Your task to perform on an android device: Search for lg ultragear on target.com, select the first entry, and add it to the cart. Image 0: 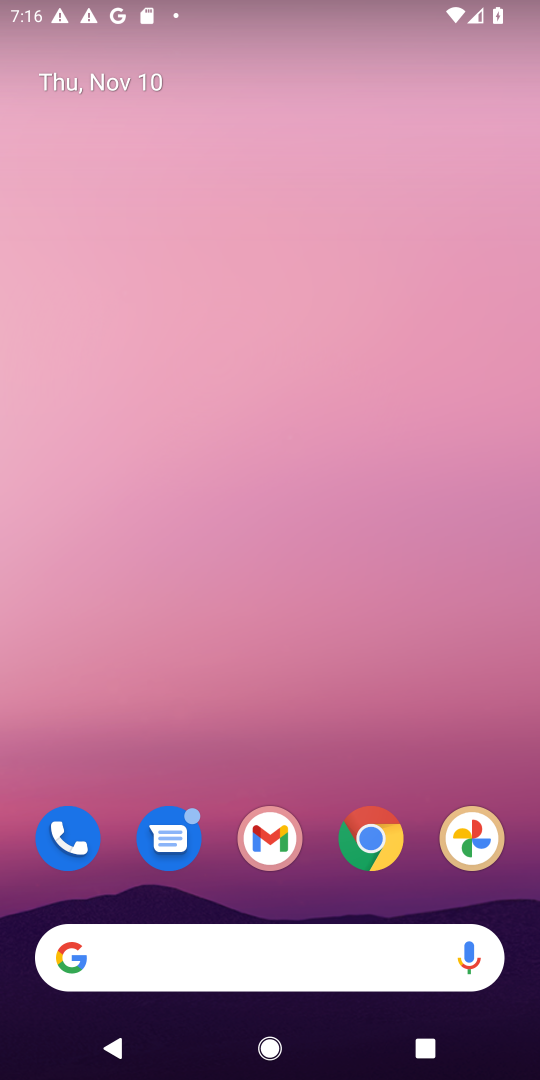
Step 0: drag from (309, 911) to (352, 176)
Your task to perform on an android device: Search for lg ultragear on target.com, select the first entry, and add it to the cart. Image 1: 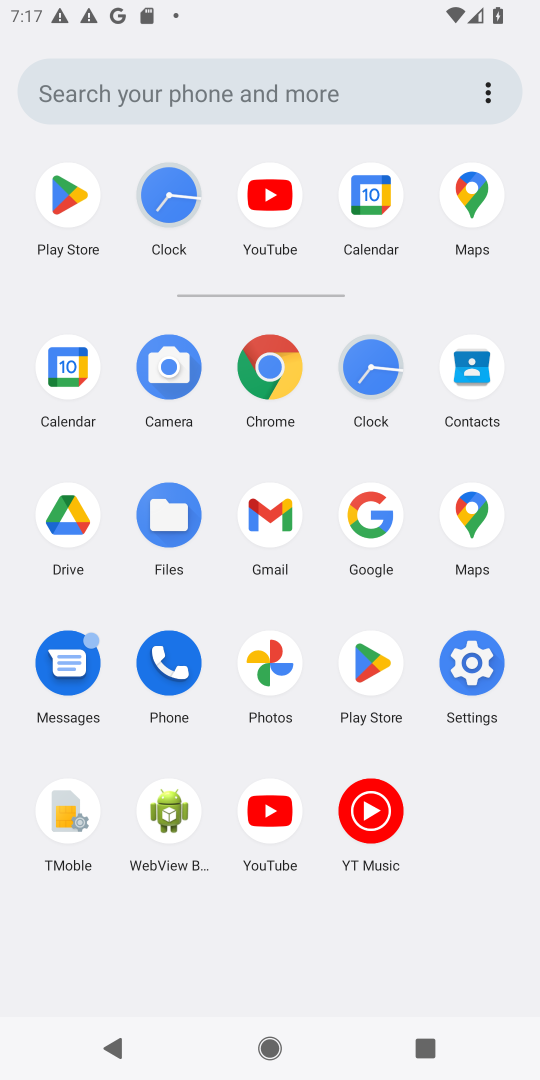
Step 1: click (277, 366)
Your task to perform on an android device: Search for lg ultragear on target.com, select the first entry, and add it to the cart. Image 2: 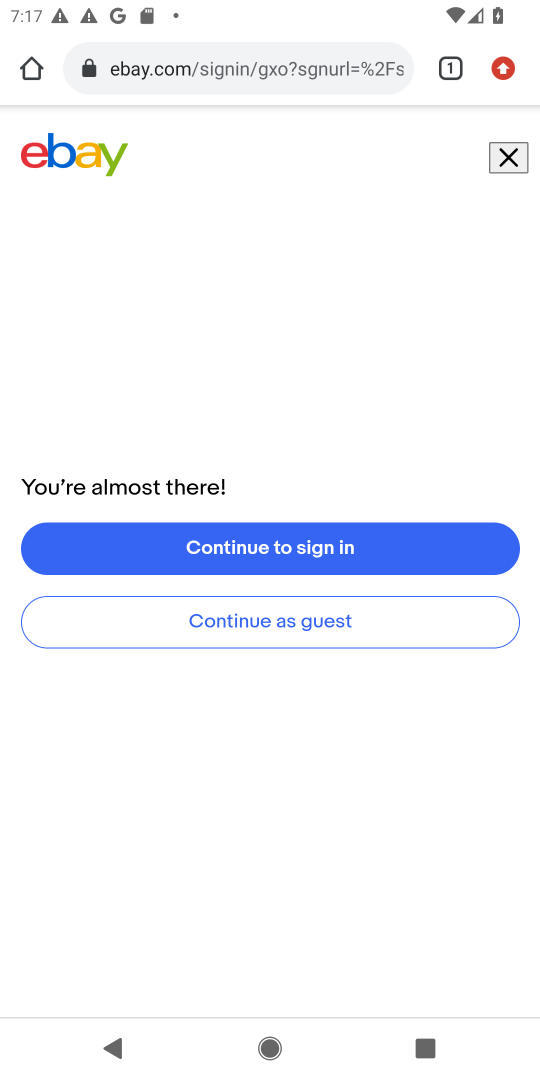
Step 2: click (290, 70)
Your task to perform on an android device: Search for lg ultragear on target.com, select the first entry, and add it to the cart. Image 3: 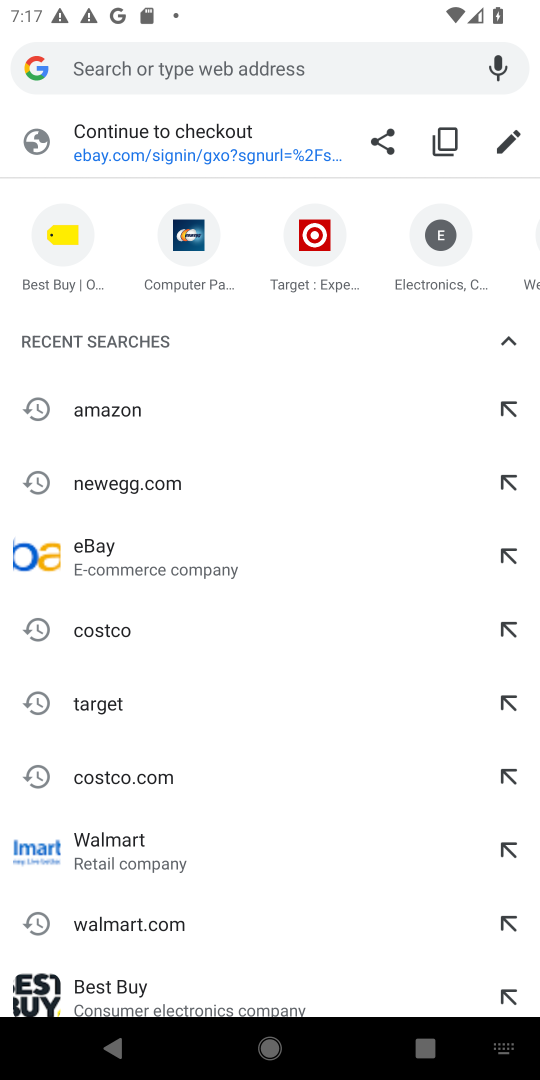
Step 3: type "target.com"
Your task to perform on an android device: Search for lg ultragear on target.com, select the first entry, and add it to the cart. Image 4: 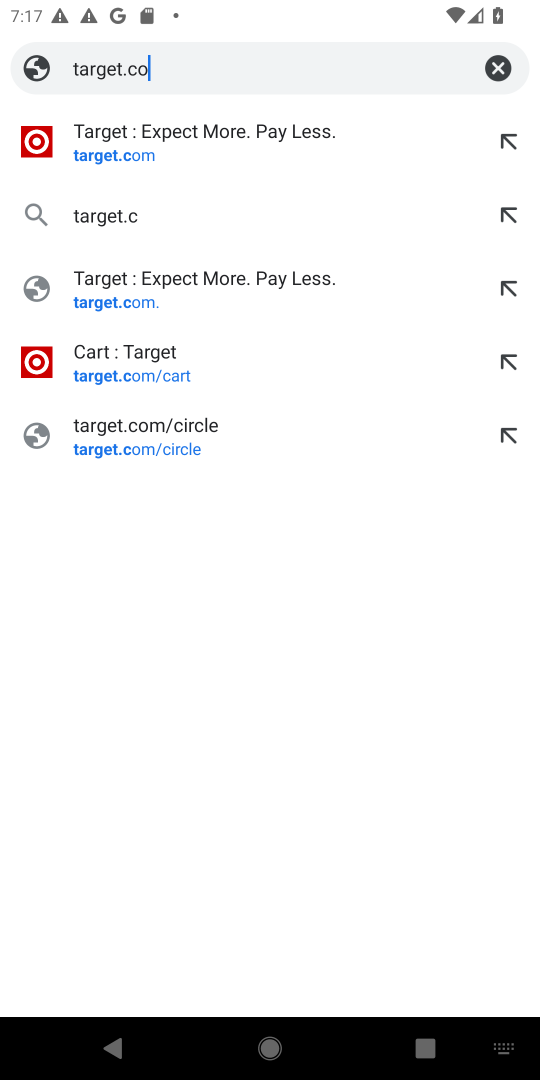
Step 4: press enter
Your task to perform on an android device: Search for lg ultragear on target.com, select the first entry, and add it to the cart. Image 5: 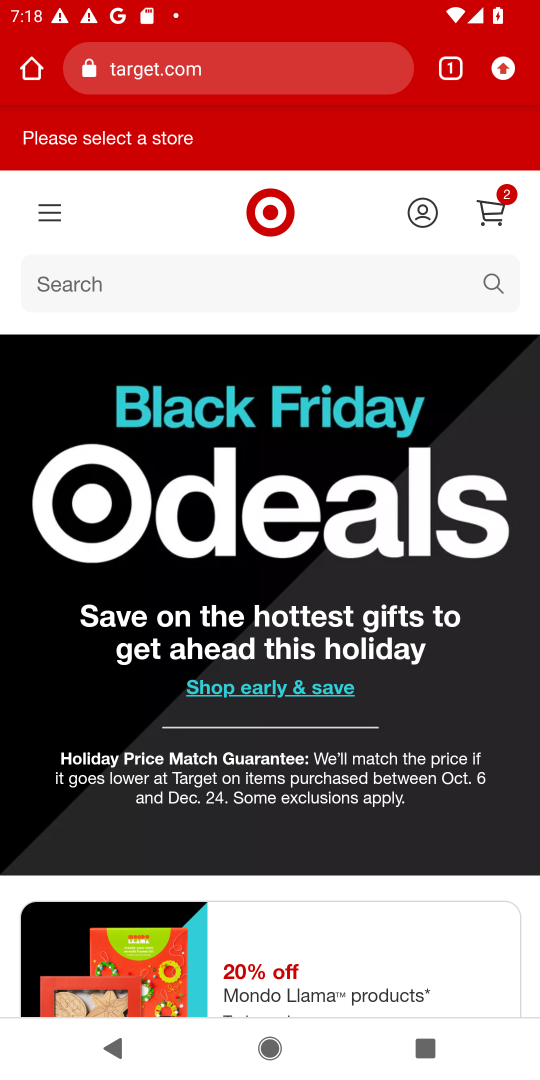
Step 5: click (143, 292)
Your task to perform on an android device: Search for lg ultragear on target.com, select the first entry, and add it to the cart. Image 6: 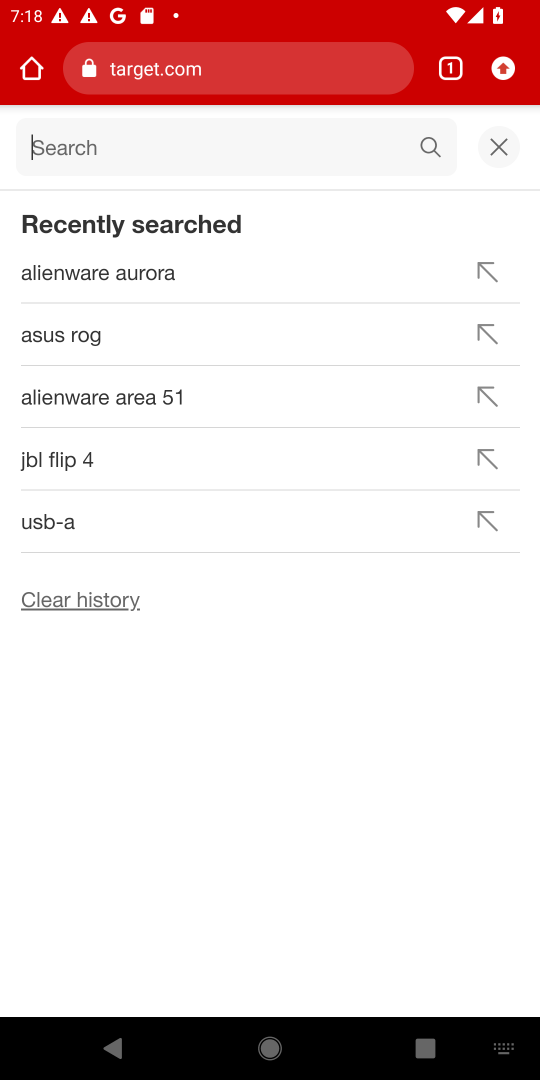
Step 6: type "lg ultragear"
Your task to perform on an android device: Search for lg ultragear on target.com, select the first entry, and add it to the cart. Image 7: 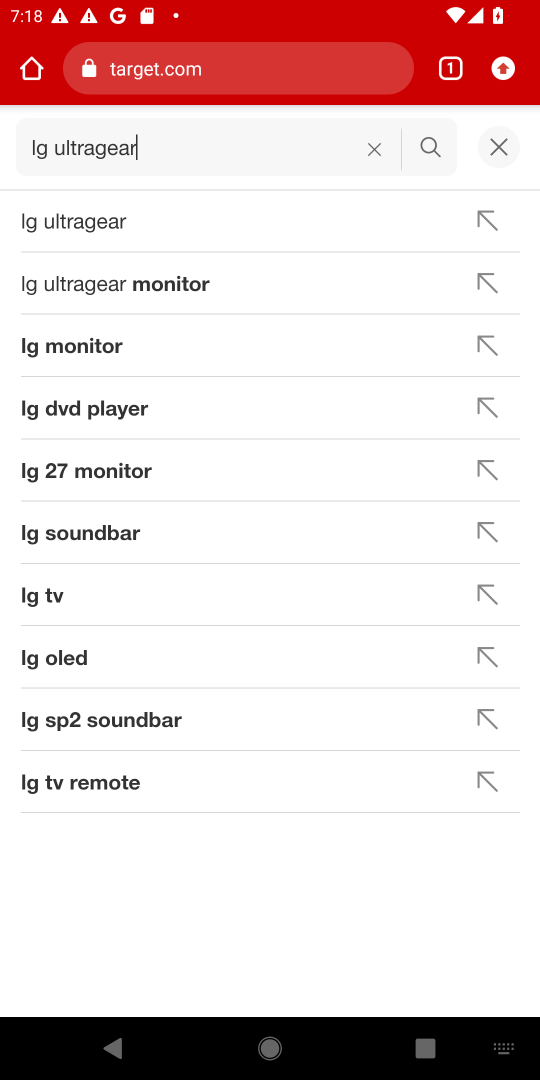
Step 7: press enter
Your task to perform on an android device: Search for lg ultragear on target.com, select the first entry, and add it to the cart. Image 8: 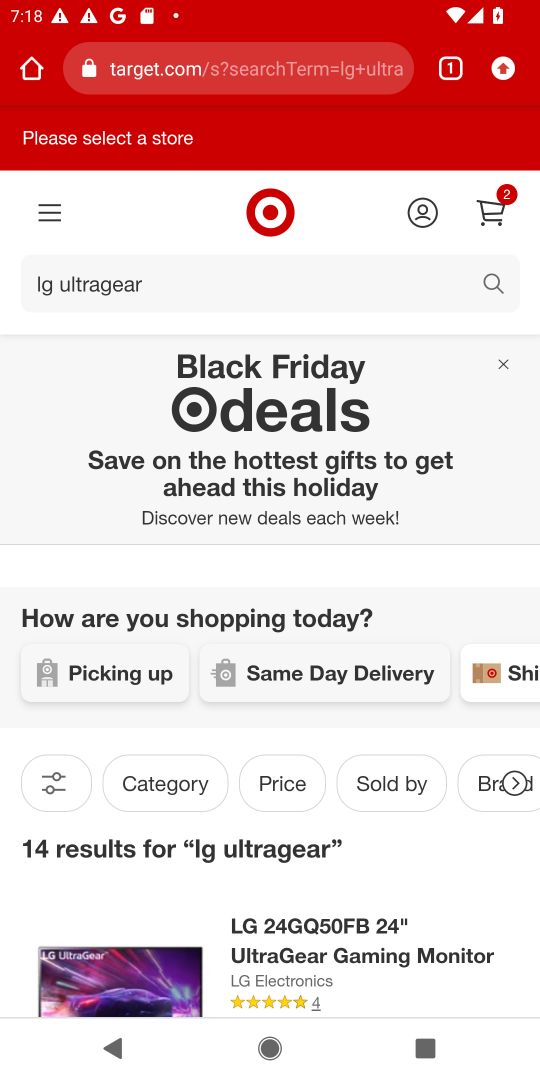
Step 8: drag from (431, 916) to (293, 58)
Your task to perform on an android device: Search for lg ultragear on target.com, select the first entry, and add it to the cart. Image 9: 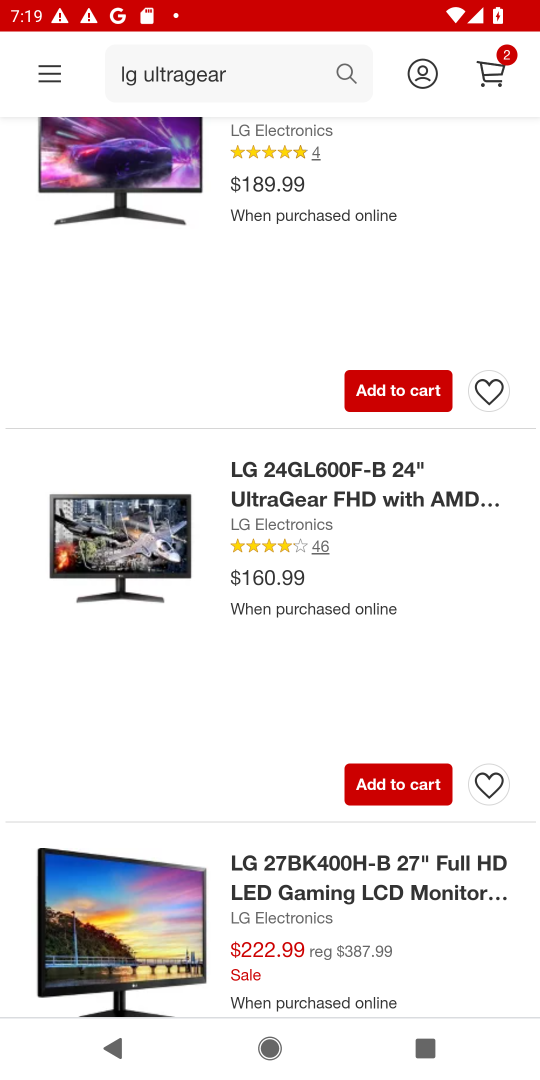
Step 9: drag from (313, 764) to (242, 962)
Your task to perform on an android device: Search for lg ultragear on target.com, select the first entry, and add it to the cart. Image 10: 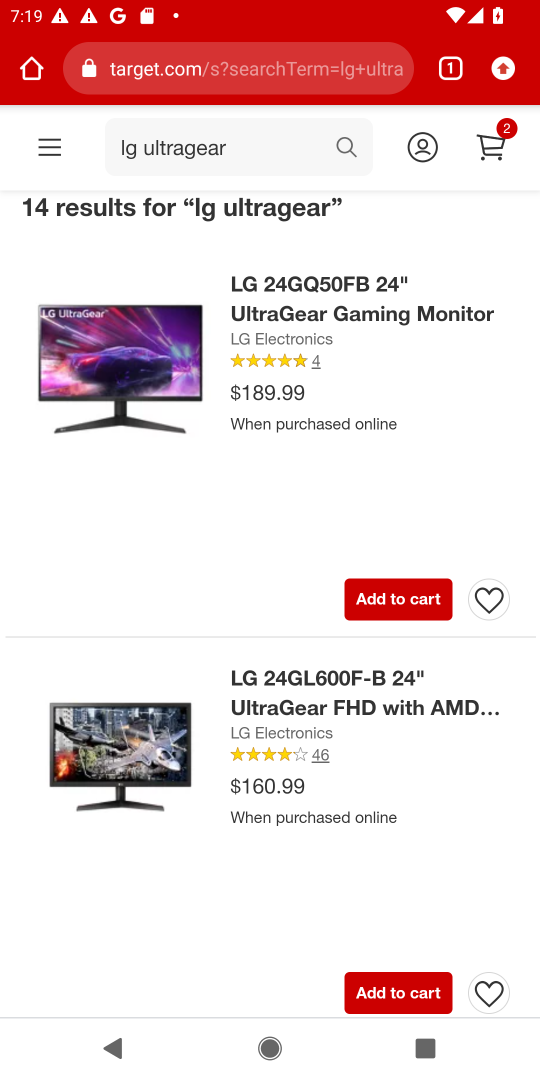
Step 10: drag from (241, 242) to (260, 752)
Your task to perform on an android device: Search for lg ultragear on target.com, select the first entry, and add it to the cart. Image 11: 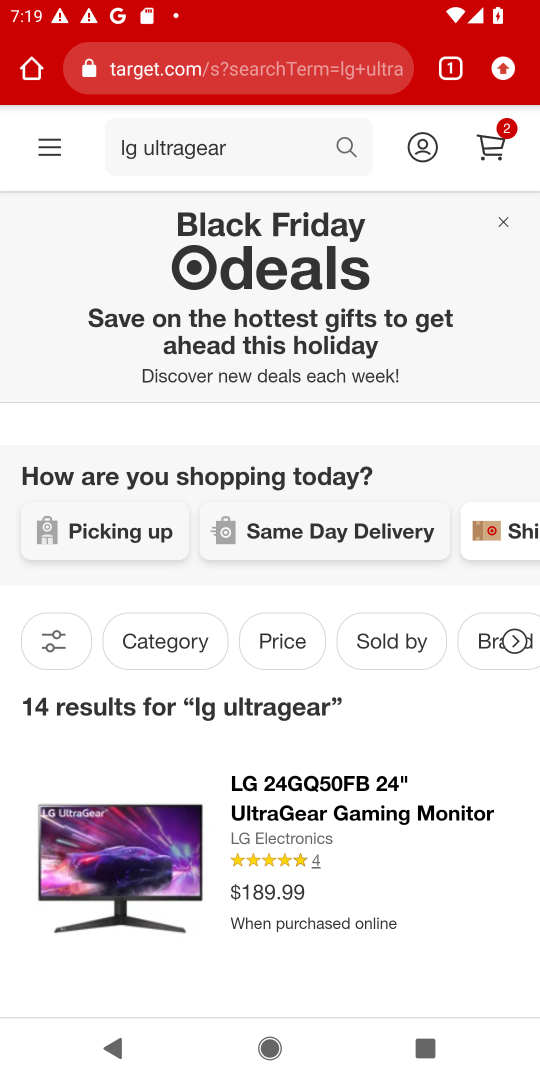
Step 11: drag from (320, 853) to (376, 269)
Your task to perform on an android device: Search for lg ultragear on target.com, select the first entry, and add it to the cart. Image 12: 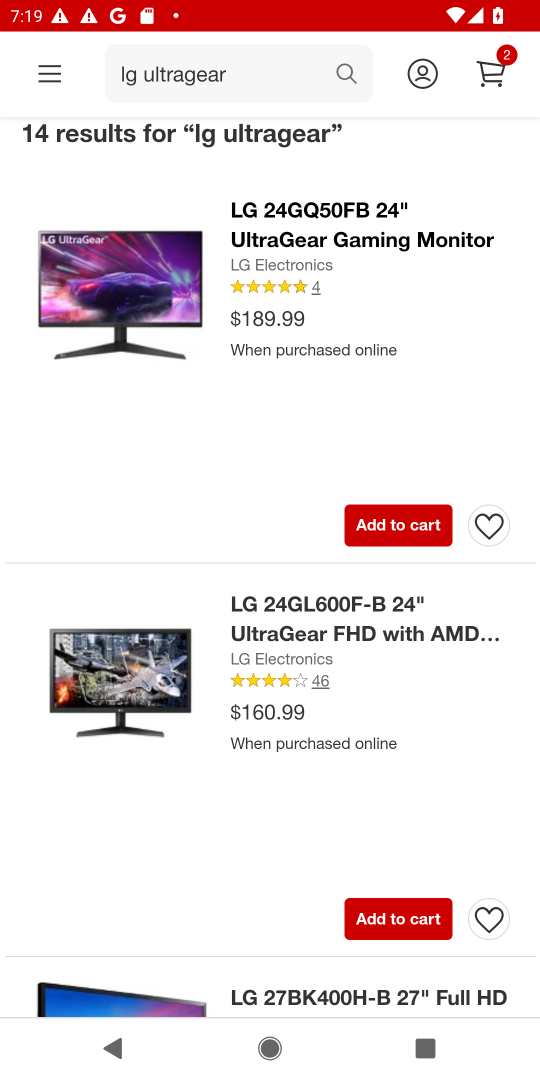
Step 12: click (208, 293)
Your task to perform on an android device: Search for lg ultragear on target.com, select the first entry, and add it to the cart. Image 13: 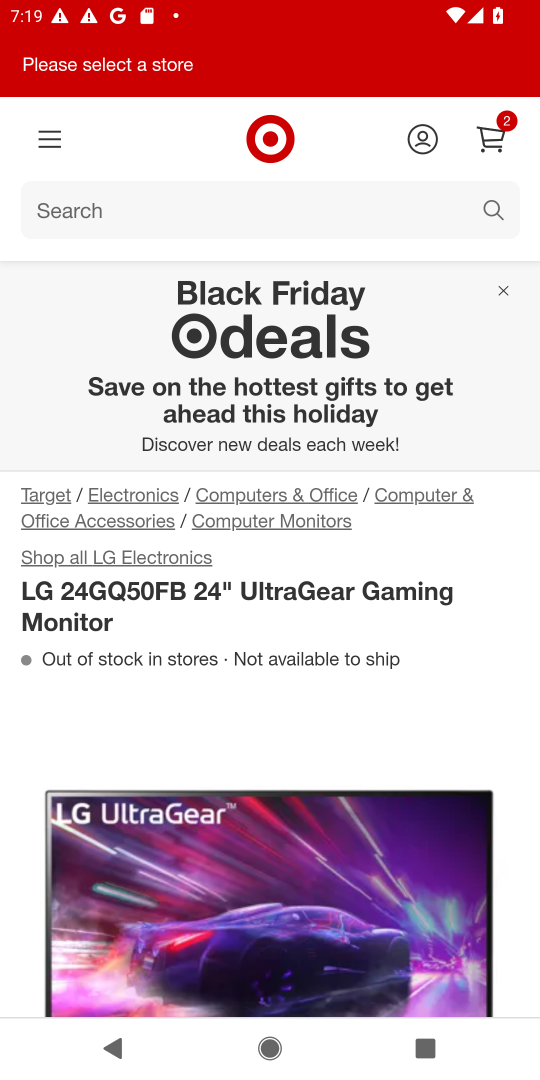
Step 13: drag from (212, 745) to (245, 0)
Your task to perform on an android device: Search for lg ultragear on target.com, select the first entry, and add it to the cart. Image 14: 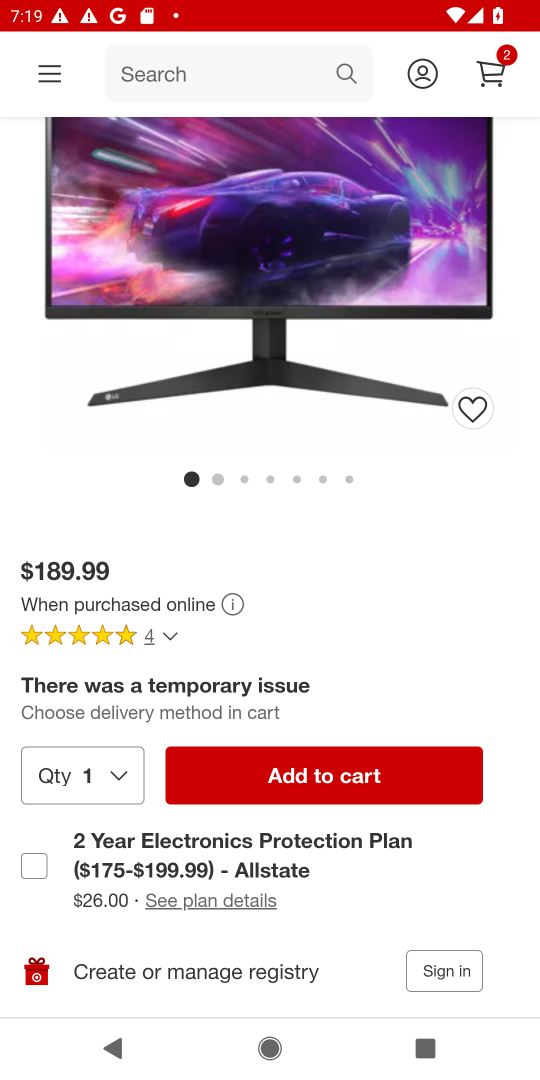
Step 14: click (364, 775)
Your task to perform on an android device: Search for lg ultragear on target.com, select the first entry, and add it to the cart. Image 15: 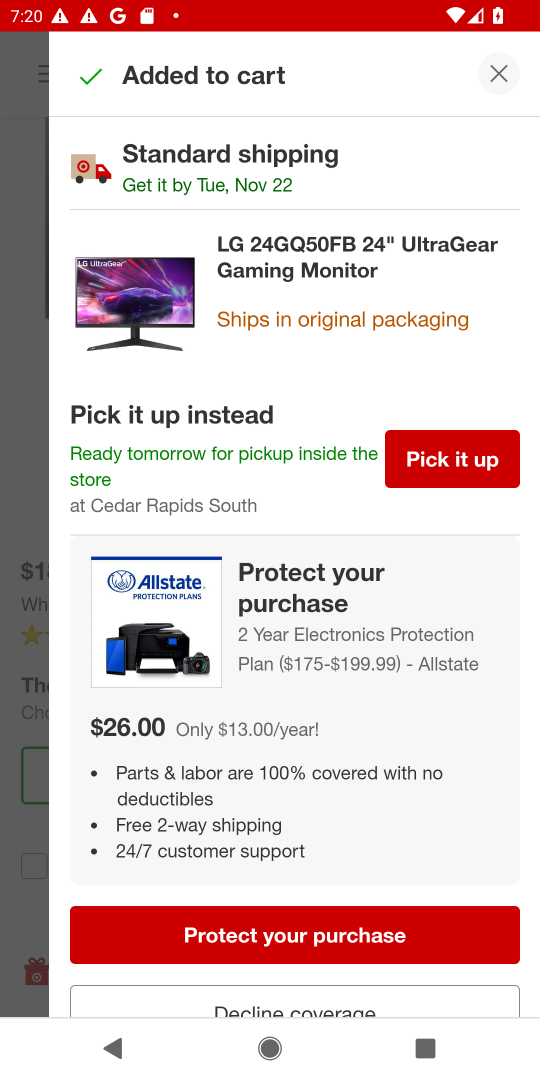
Step 15: task complete